Your task to perform on an android device: Add "apple airpods pro" to the cart on costco Image 0: 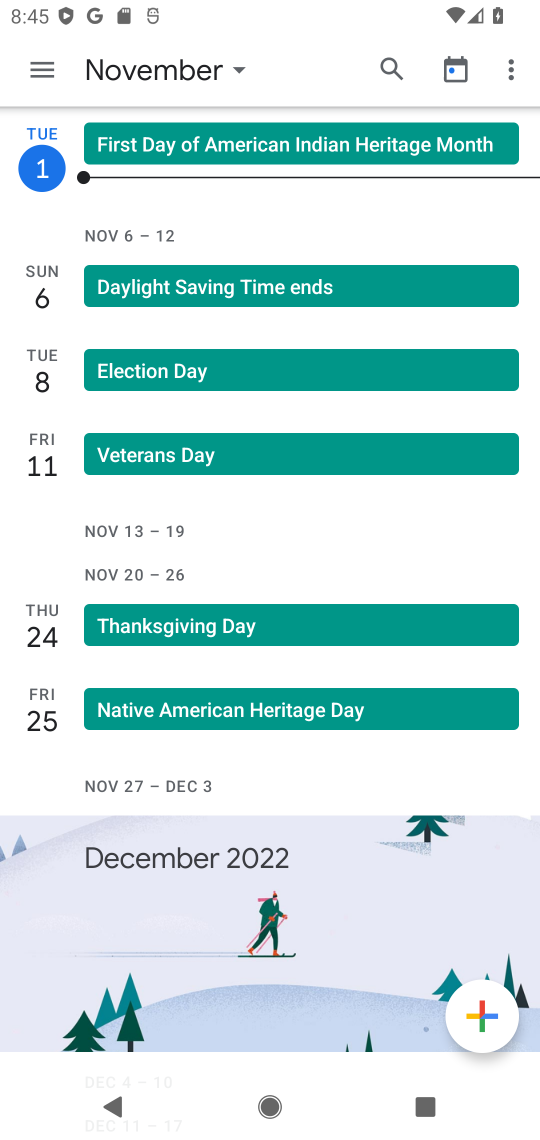
Step 0: press home button
Your task to perform on an android device: Add "apple airpods pro" to the cart on costco Image 1: 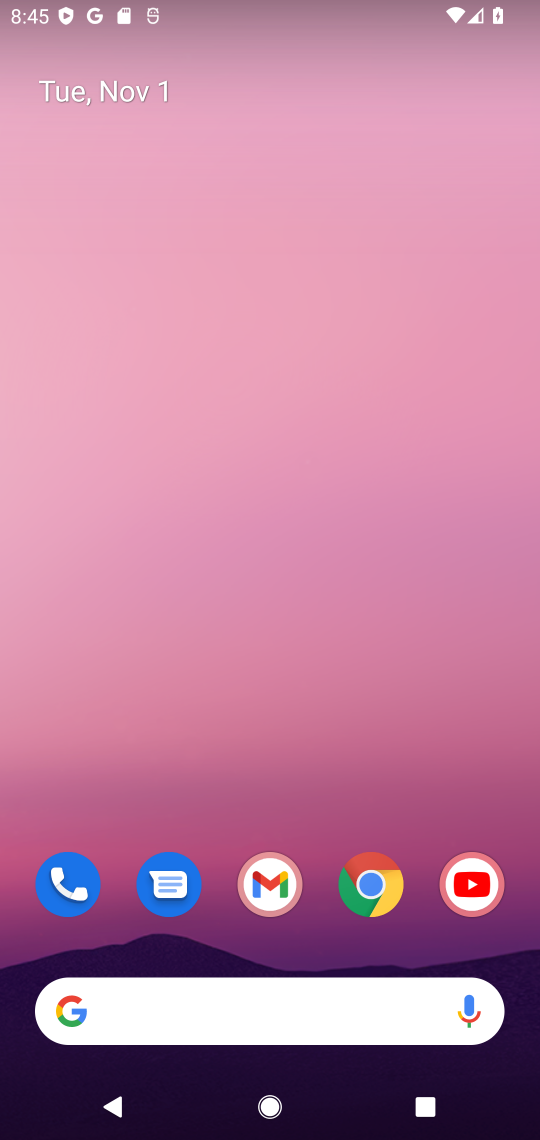
Step 1: click (379, 876)
Your task to perform on an android device: Add "apple airpods pro" to the cart on costco Image 2: 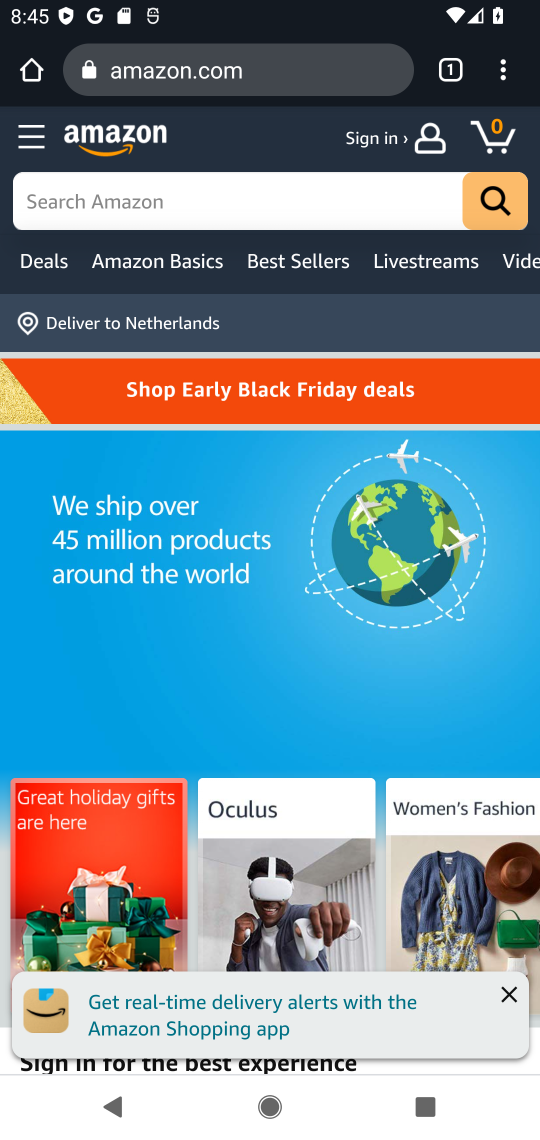
Step 2: click (330, 70)
Your task to perform on an android device: Add "apple airpods pro" to the cart on costco Image 3: 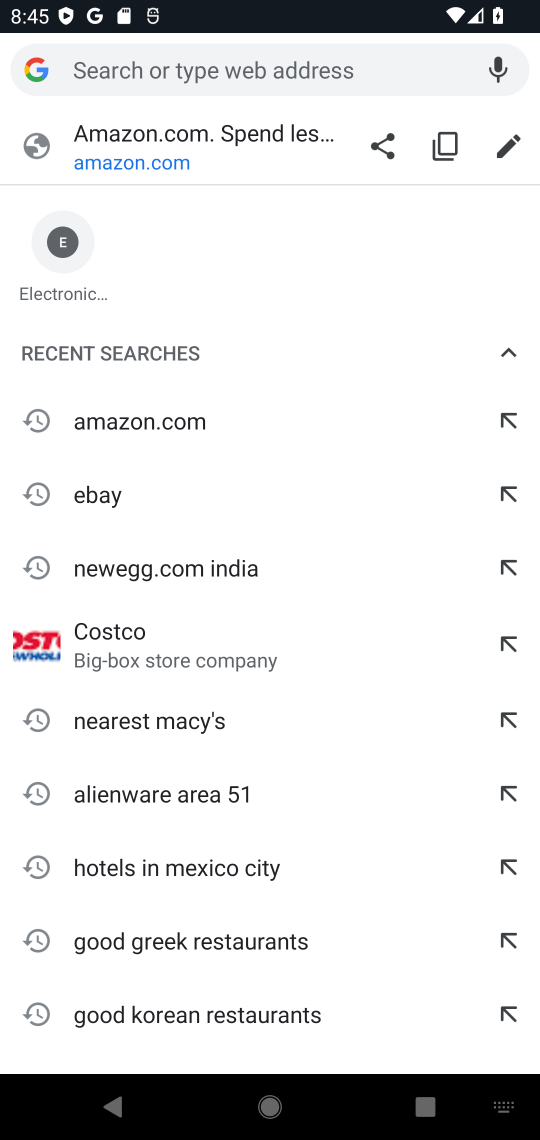
Step 3: click (113, 641)
Your task to perform on an android device: Add "apple airpods pro" to the cart on costco Image 4: 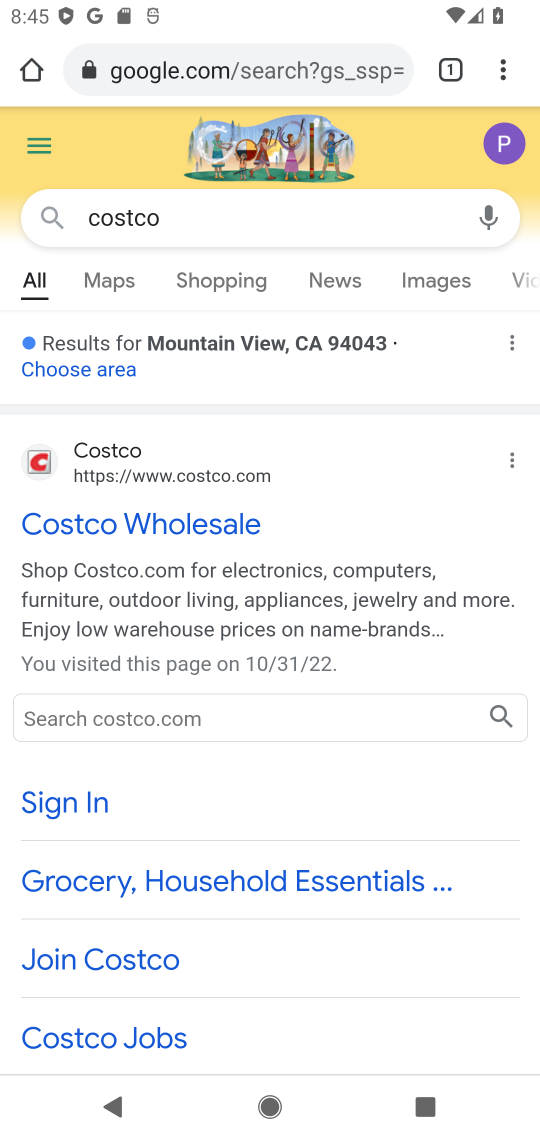
Step 4: click (125, 472)
Your task to perform on an android device: Add "apple airpods pro" to the cart on costco Image 5: 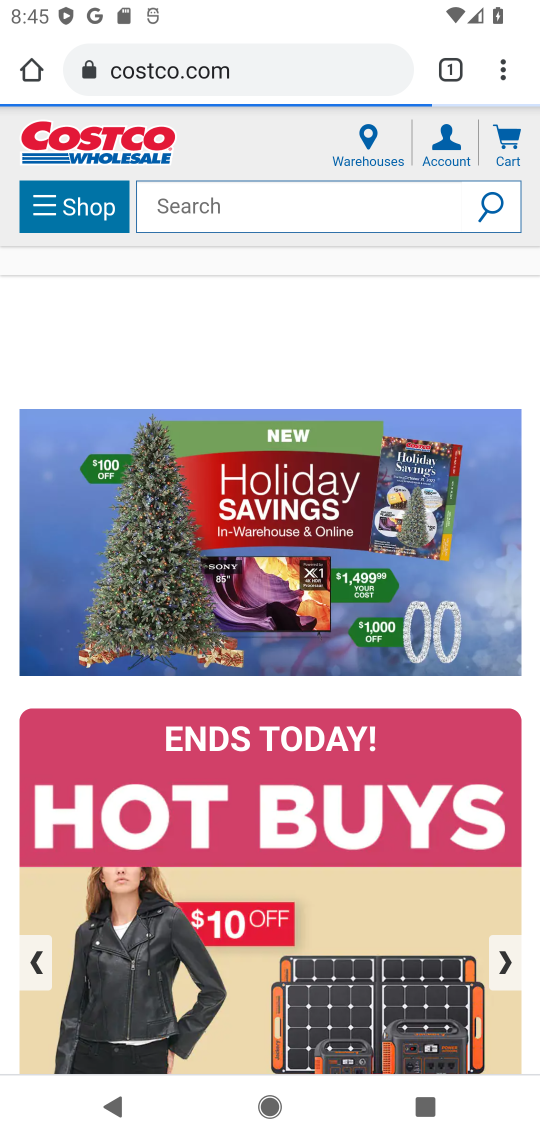
Step 5: click (323, 196)
Your task to perform on an android device: Add "apple airpods pro" to the cart on costco Image 6: 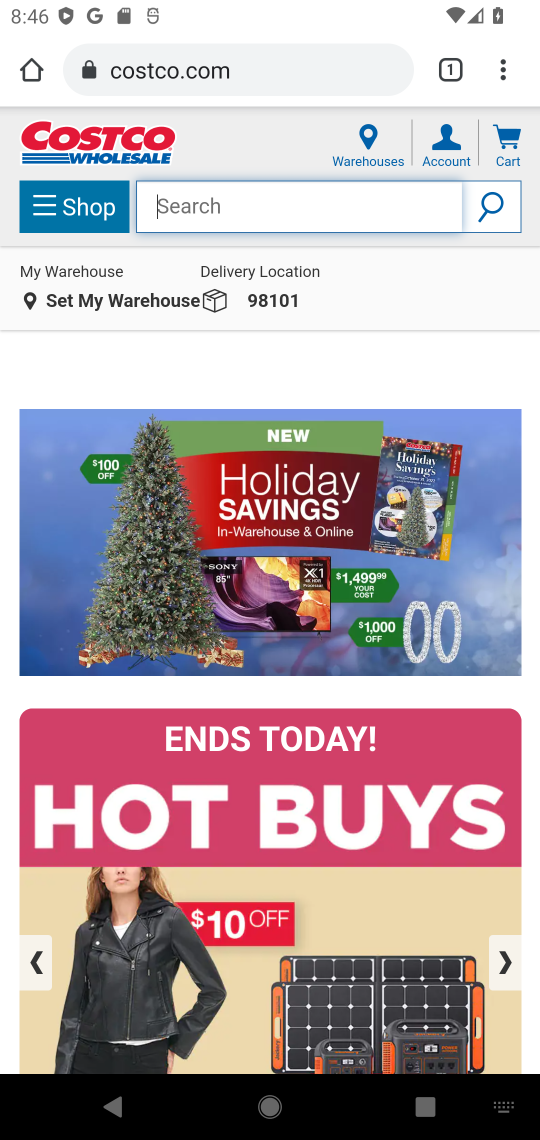
Step 6: type "apple airpods pro"
Your task to perform on an android device: Add "apple airpods pro" to the cart on costco Image 7: 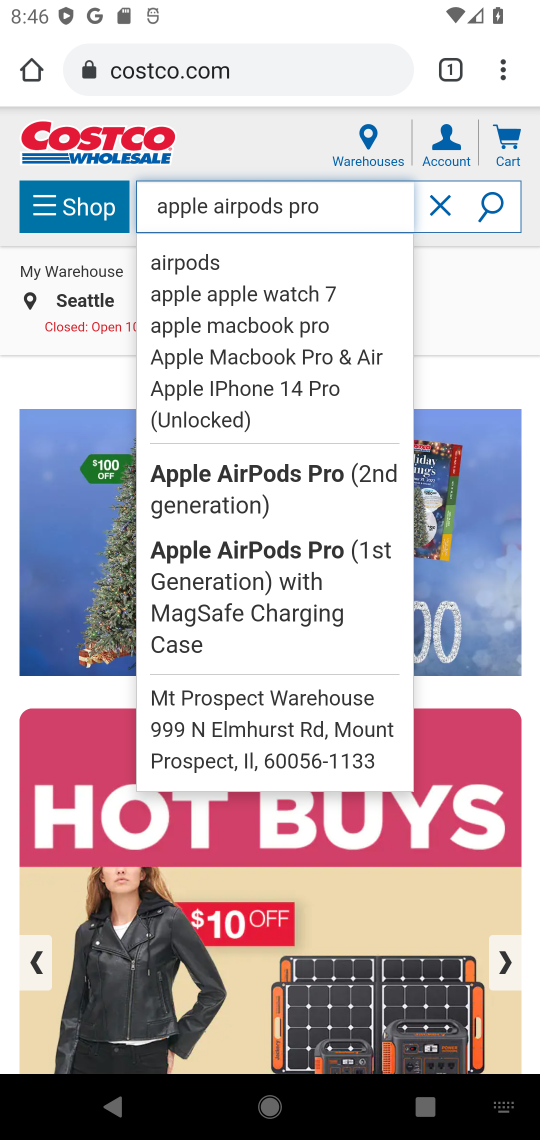
Step 7: click (349, 215)
Your task to perform on an android device: Add "apple airpods pro" to the cart on costco Image 8: 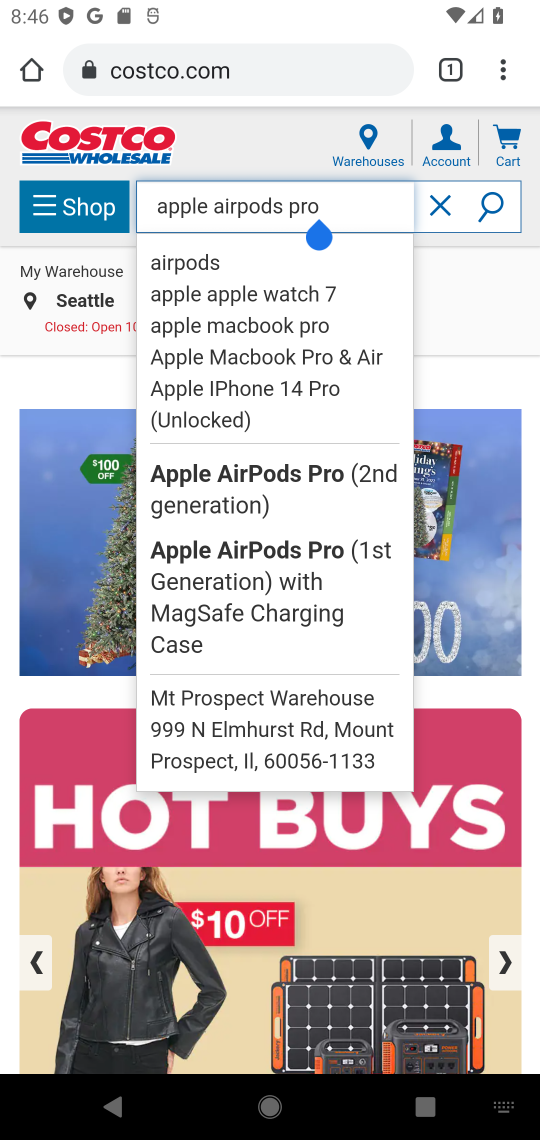
Step 8: click (482, 263)
Your task to perform on an android device: Add "apple airpods pro" to the cart on costco Image 9: 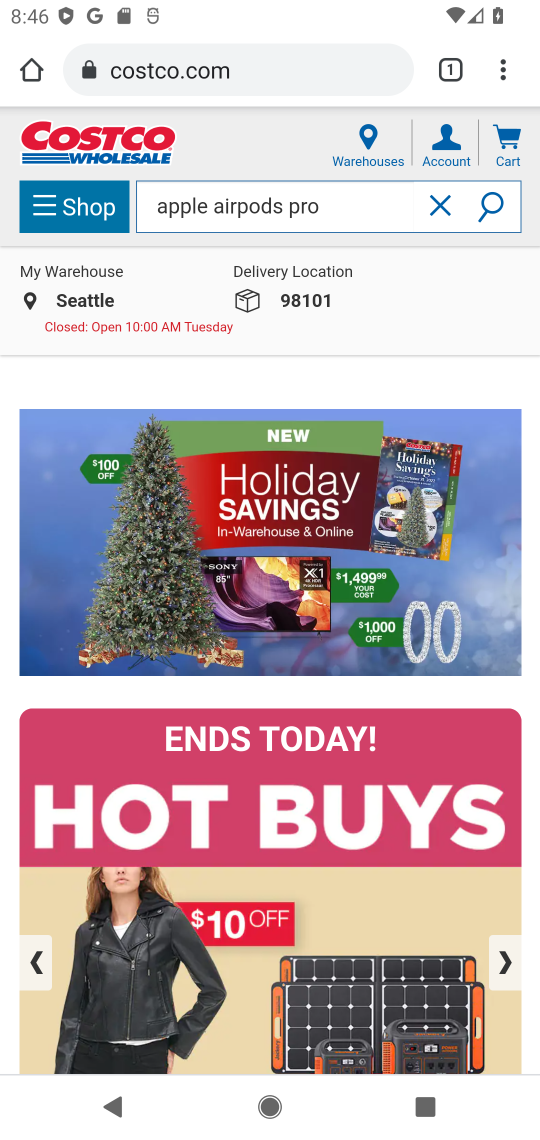
Step 9: drag from (412, 500) to (406, 196)
Your task to perform on an android device: Add "apple airpods pro" to the cart on costco Image 10: 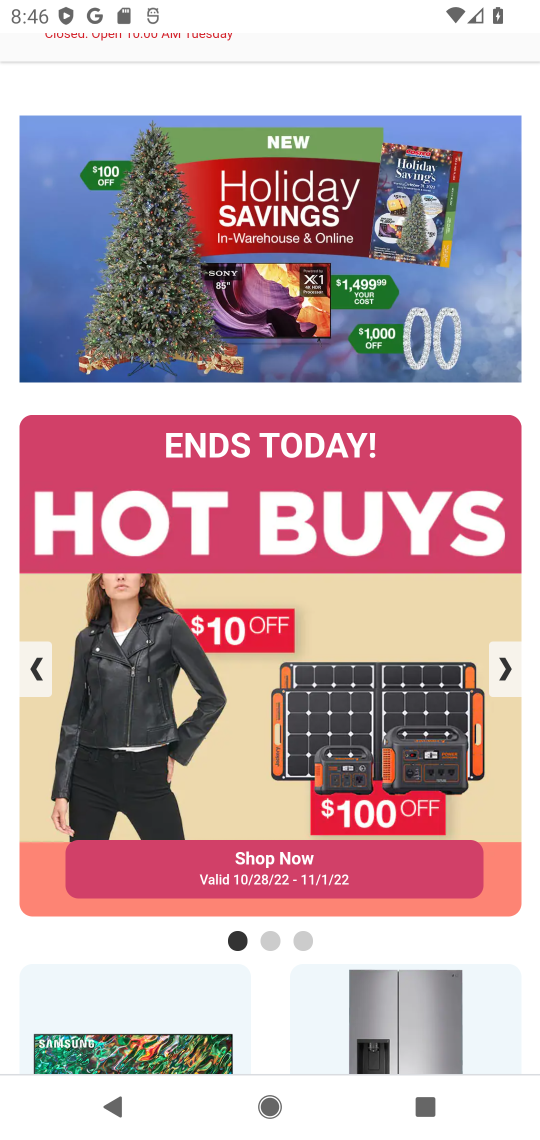
Step 10: drag from (383, 353) to (405, 939)
Your task to perform on an android device: Add "apple airpods pro" to the cart on costco Image 11: 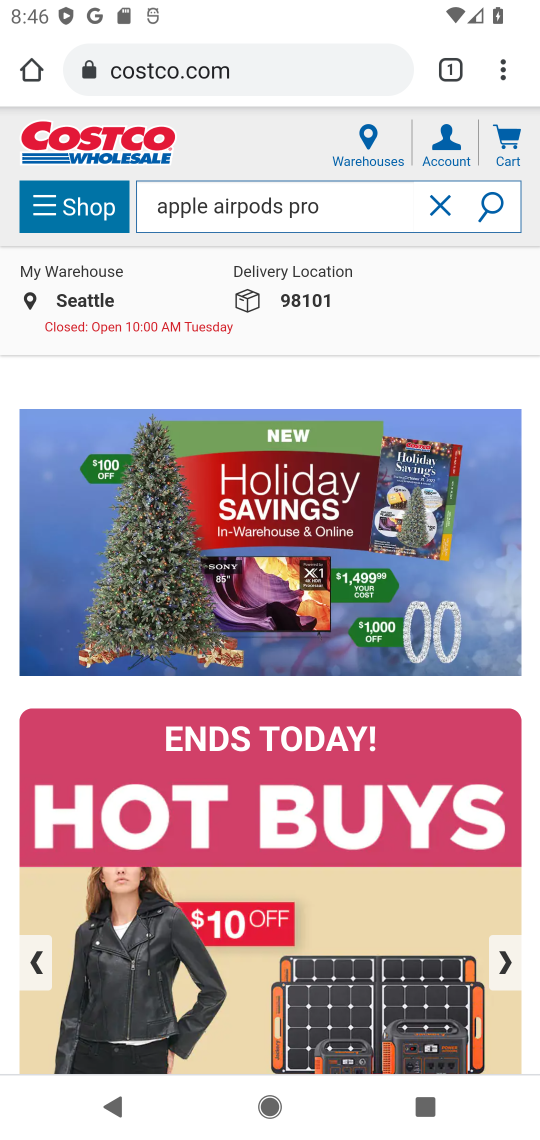
Step 11: click (484, 210)
Your task to perform on an android device: Add "apple airpods pro" to the cart on costco Image 12: 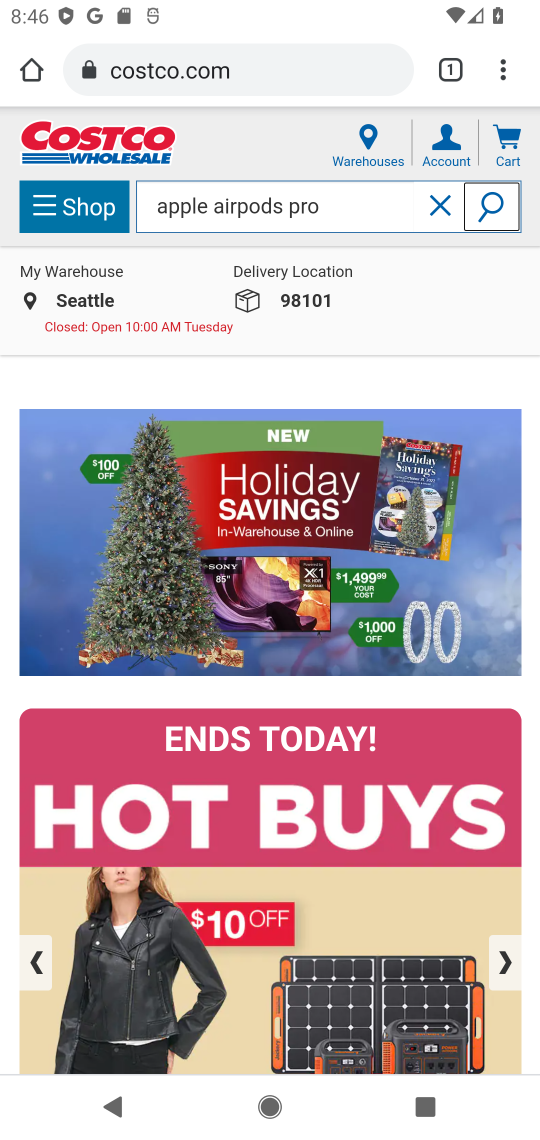
Step 12: click (431, 203)
Your task to perform on an android device: Add "apple airpods pro" to the cart on costco Image 13: 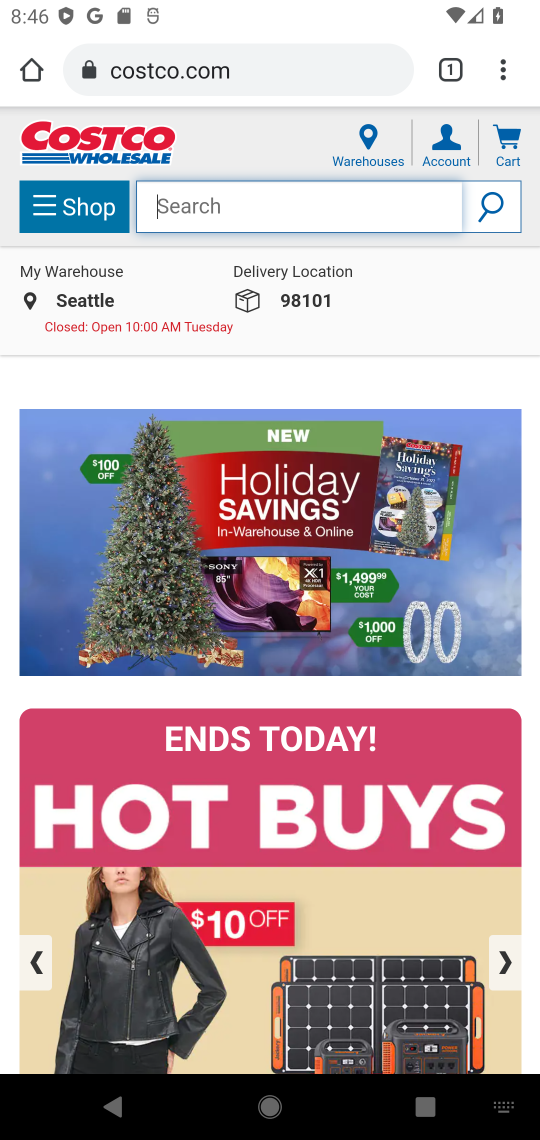
Step 13: press enter
Your task to perform on an android device: Add "apple airpods pro" to the cart on costco Image 14: 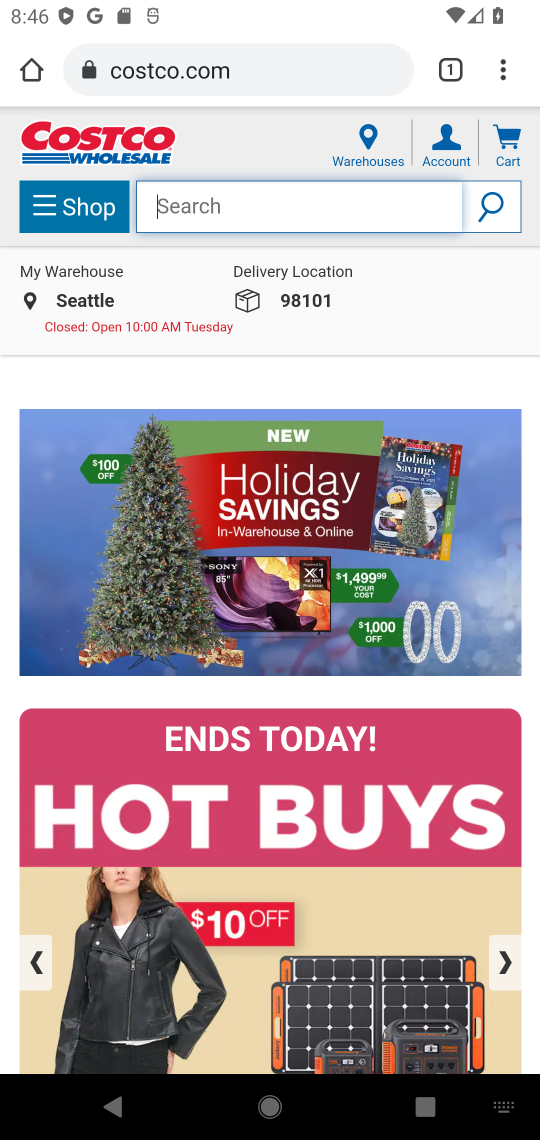
Step 14: type "apple airpods pro"
Your task to perform on an android device: Add "apple airpods pro" to the cart on costco Image 15: 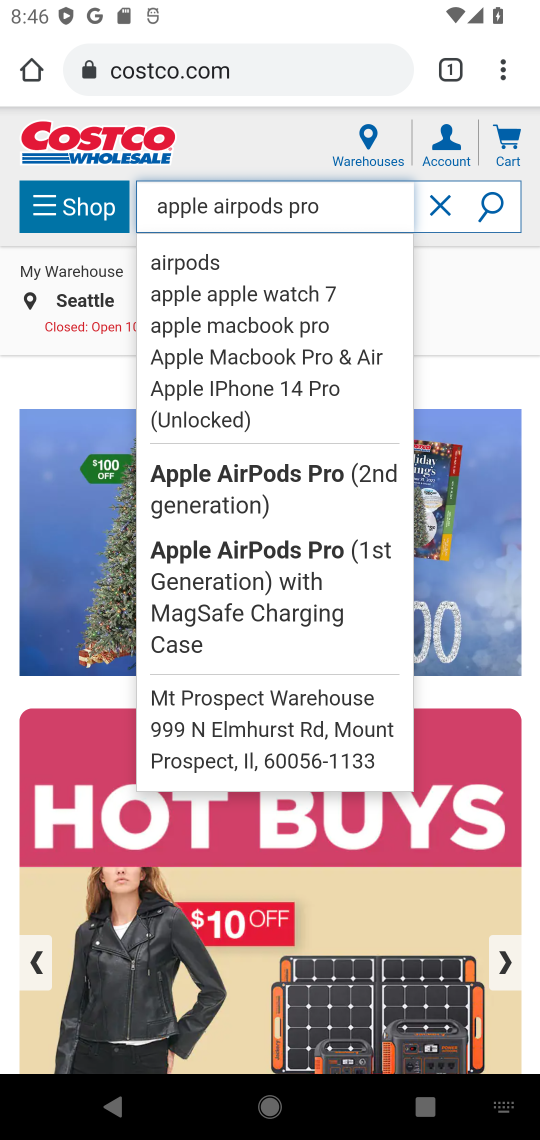
Step 15: click (211, 259)
Your task to perform on an android device: Add "apple airpods pro" to the cart on costco Image 16: 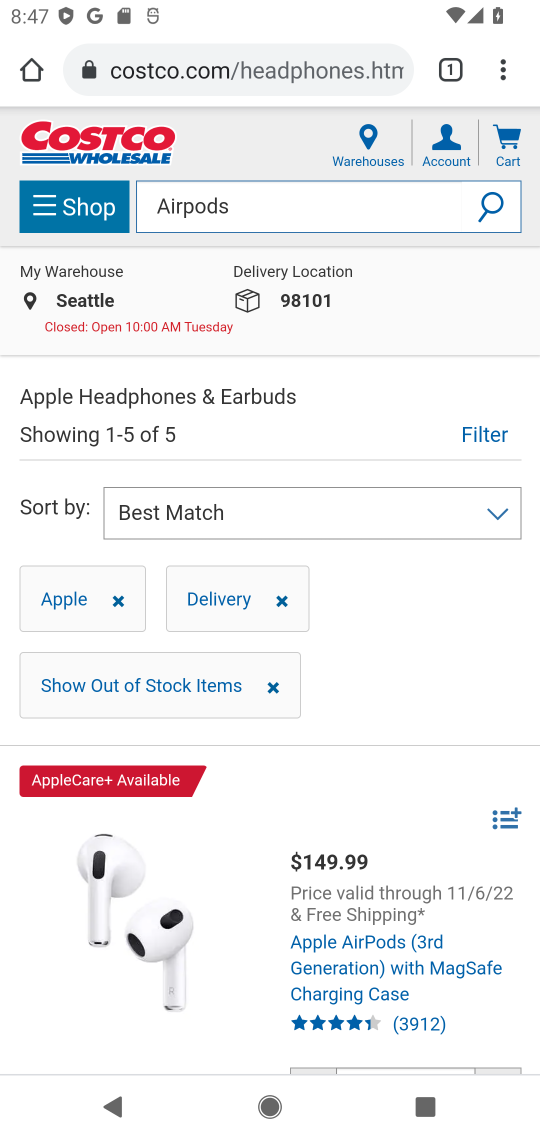
Step 16: click (133, 901)
Your task to perform on an android device: Add "apple airpods pro" to the cart on costco Image 17: 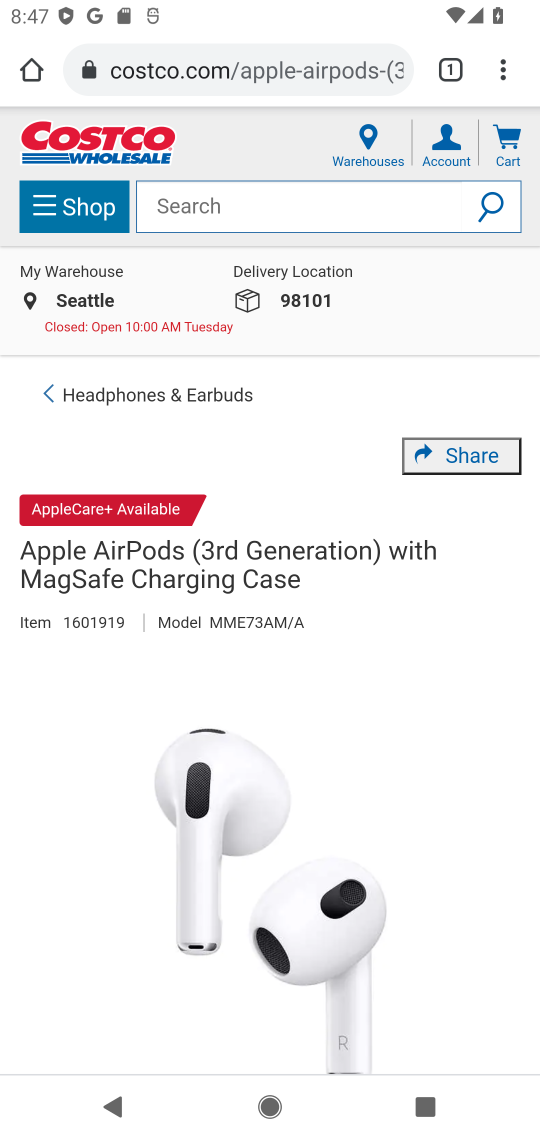
Step 17: drag from (333, 877) to (372, 308)
Your task to perform on an android device: Add "apple airpods pro" to the cart on costco Image 18: 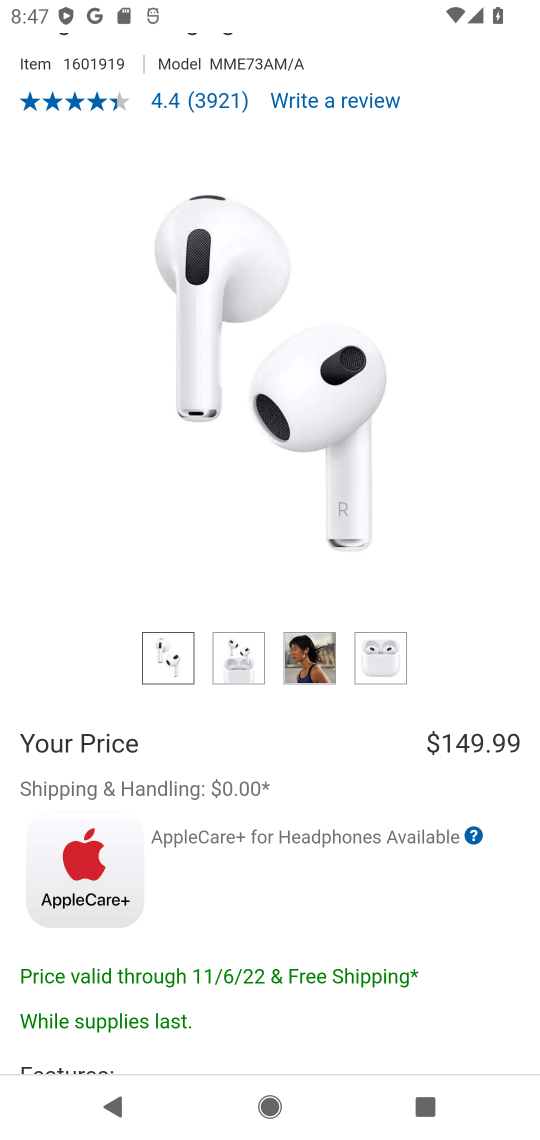
Step 18: drag from (334, 890) to (296, 415)
Your task to perform on an android device: Add "apple airpods pro" to the cart on costco Image 19: 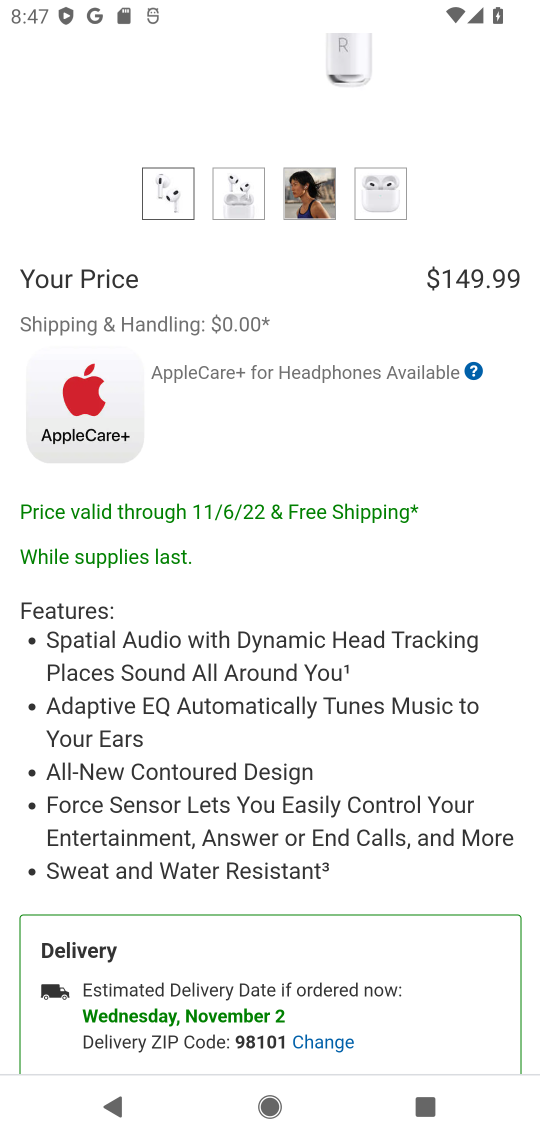
Step 19: drag from (328, 849) to (274, 451)
Your task to perform on an android device: Add "apple airpods pro" to the cart on costco Image 20: 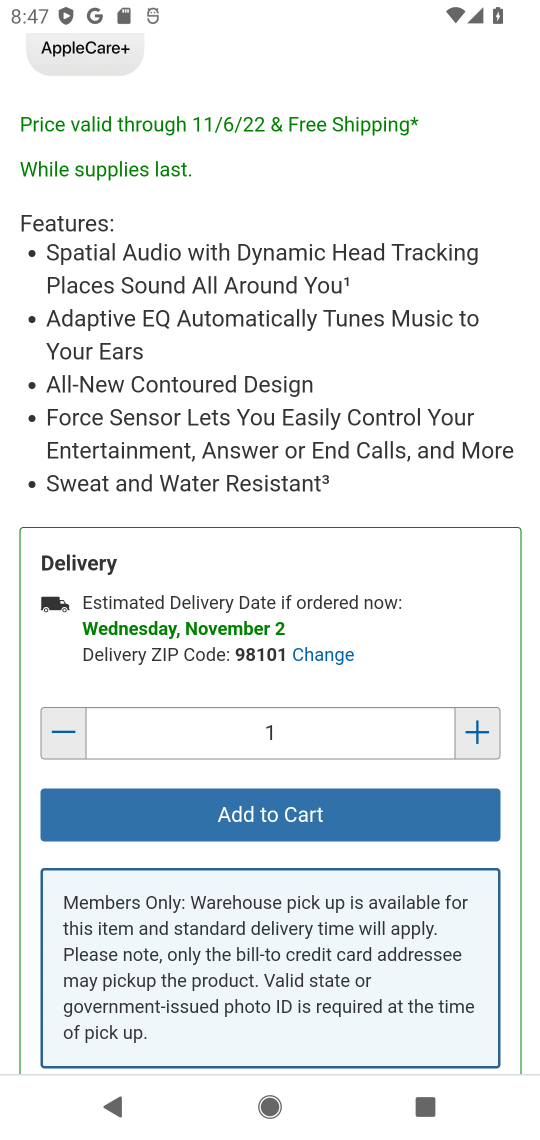
Step 20: click (309, 824)
Your task to perform on an android device: Add "apple airpods pro" to the cart on costco Image 21: 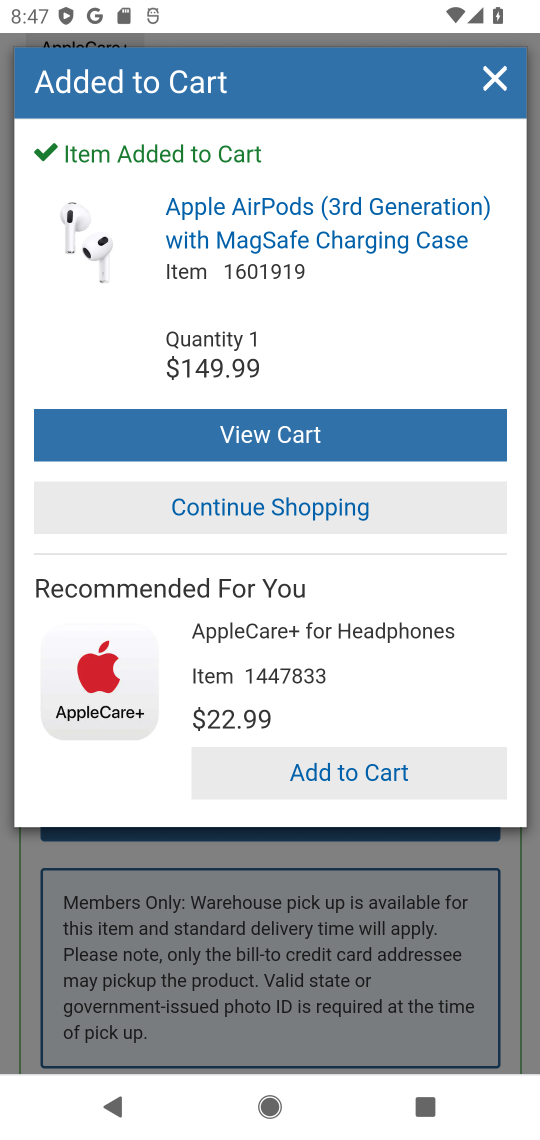
Step 21: click (504, 71)
Your task to perform on an android device: Add "apple airpods pro" to the cart on costco Image 22: 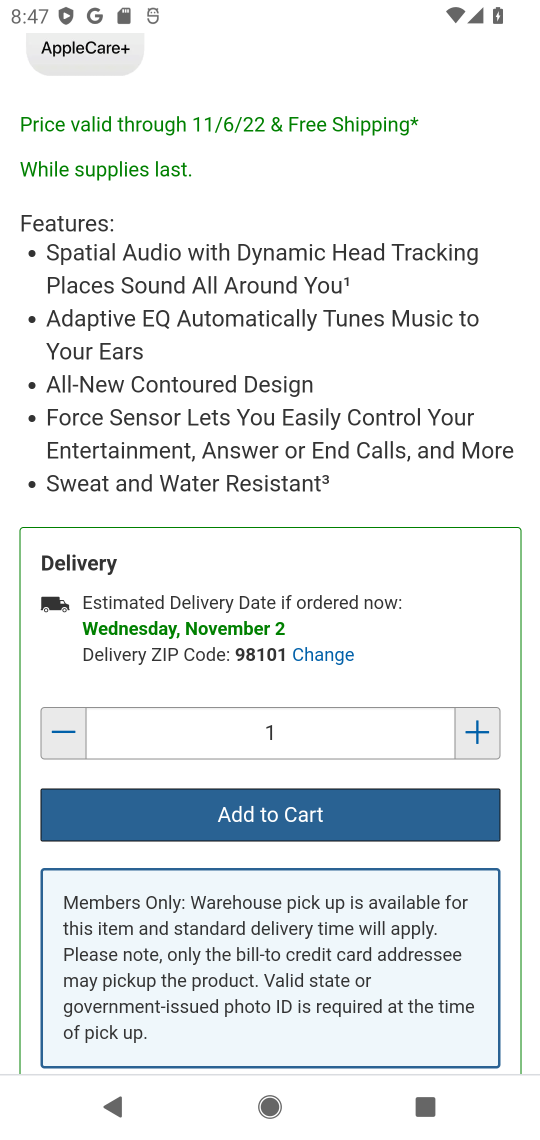
Step 22: task complete